Your task to perform on an android device: Open Wikipedia Image 0: 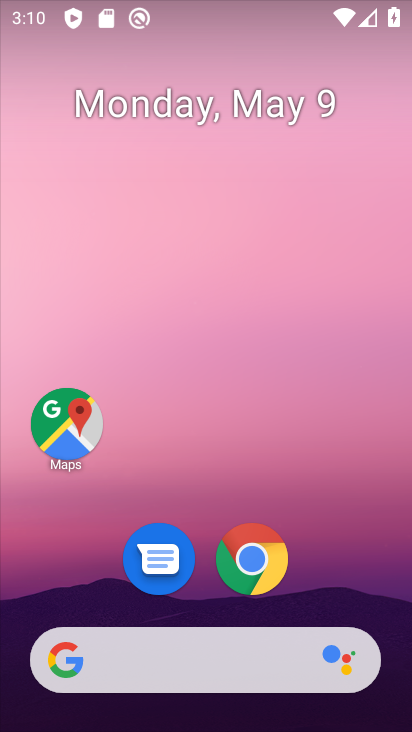
Step 0: click (259, 558)
Your task to perform on an android device: Open Wikipedia Image 1: 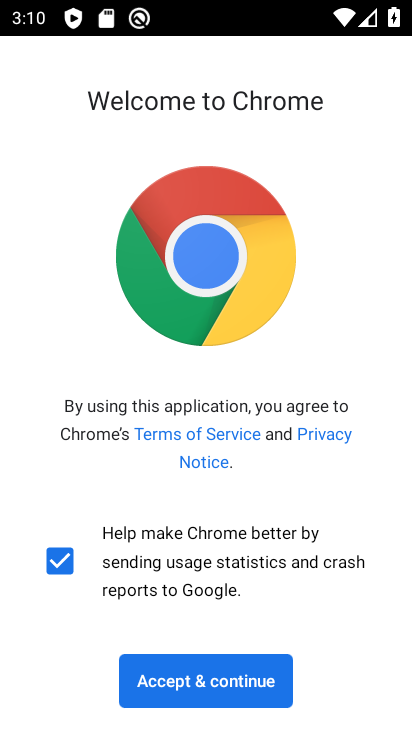
Step 1: click (183, 686)
Your task to perform on an android device: Open Wikipedia Image 2: 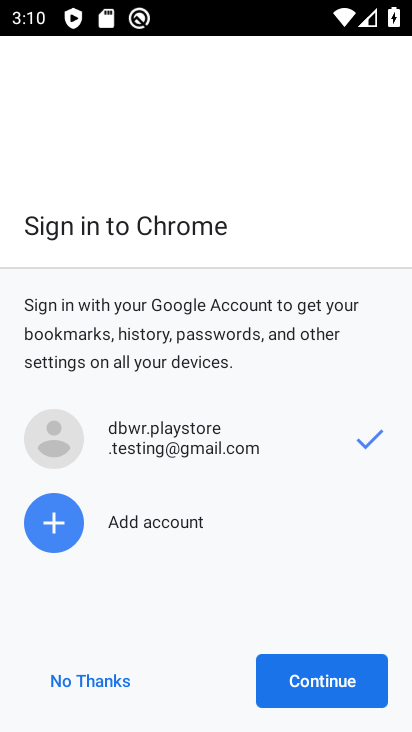
Step 2: click (320, 682)
Your task to perform on an android device: Open Wikipedia Image 3: 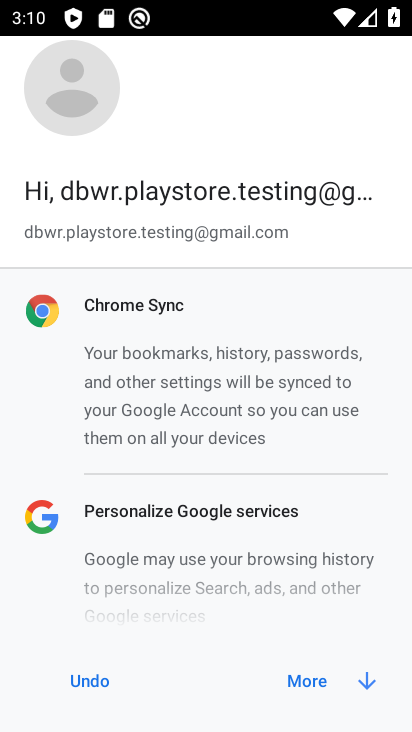
Step 3: click (301, 683)
Your task to perform on an android device: Open Wikipedia Image 4: 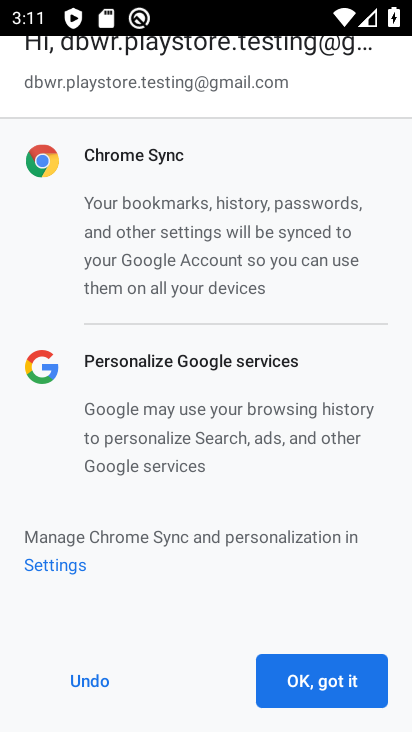
Step 4: click (301, 683)
Your task to perform on an android device: Open Wikipedia Image 5: 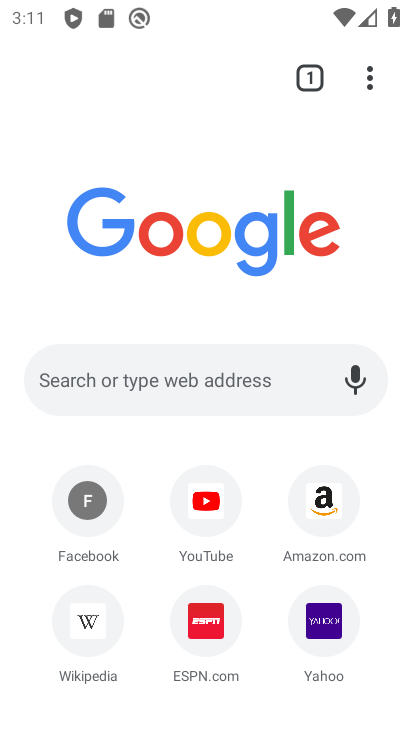
Step 5: click (75, 628)
Your task to perform on an android device: Open Wikipedia Image 6: 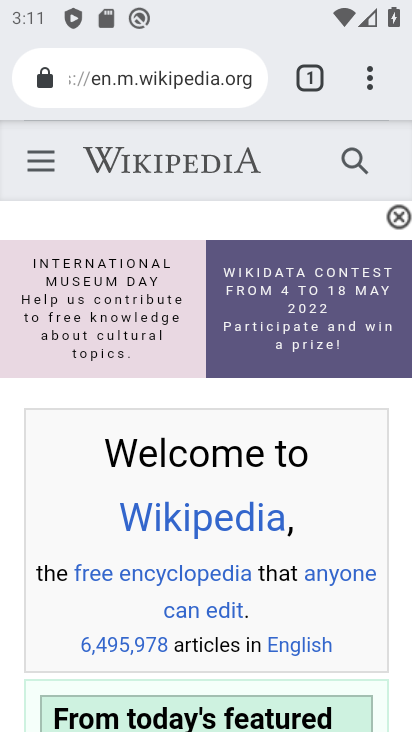
Step 6: task complete